Your task to perform on an android device: set an alarm Image 0: 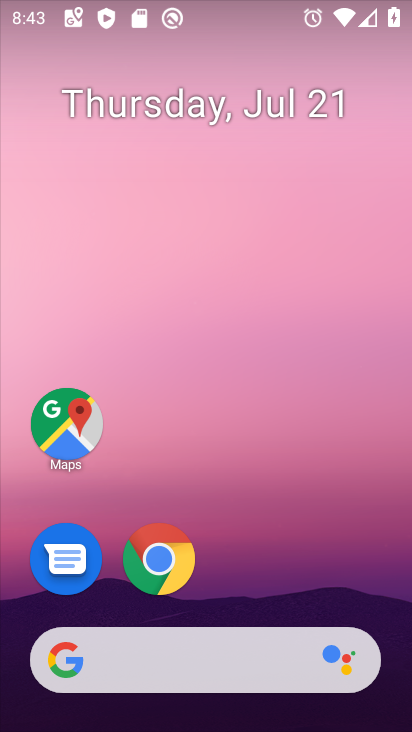
Step 0: drag from (351, 462) to (367, 72)
Your task to perform on an android device: set an alarm Image 1: 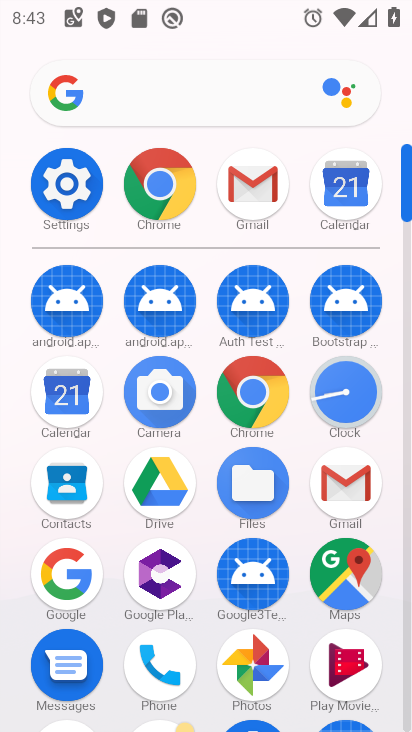
Step 1: click (350, 384)
Your task to perform on an android device: set an alarm Image 2: 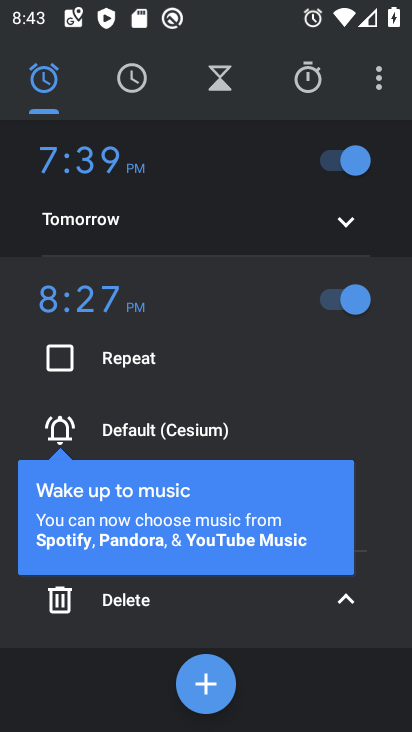
Step 2: click (210, 683)
Your task to perform on an android device: set an alarm Image 3: 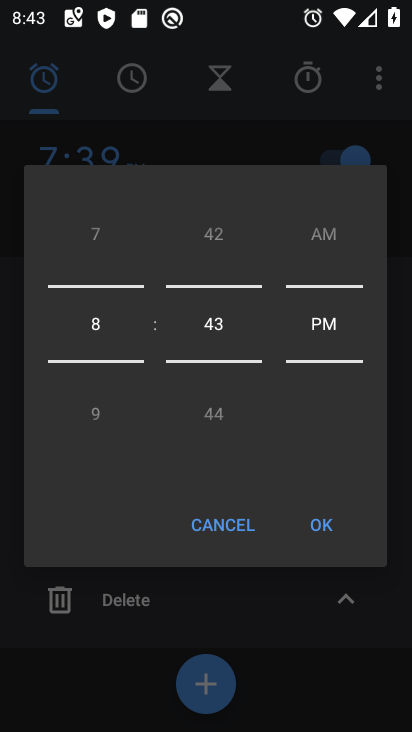
Step 3: click (315, 519)
Your task to perform on an android device: set an alarm Image 4: 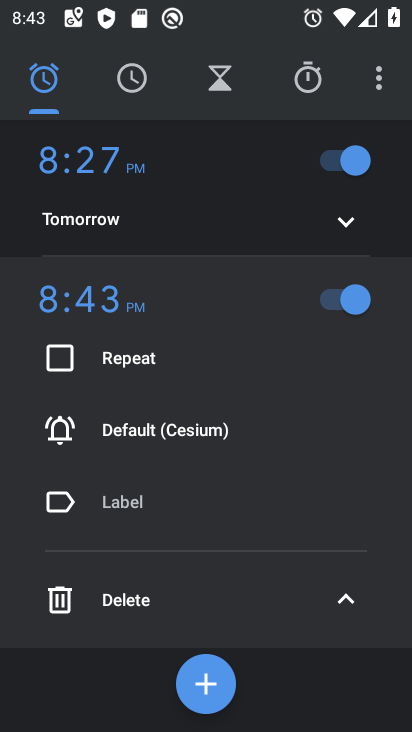
Step 4: task complete